Your task to perform on an android device: Go to calendar. Show me events next week Image 0: 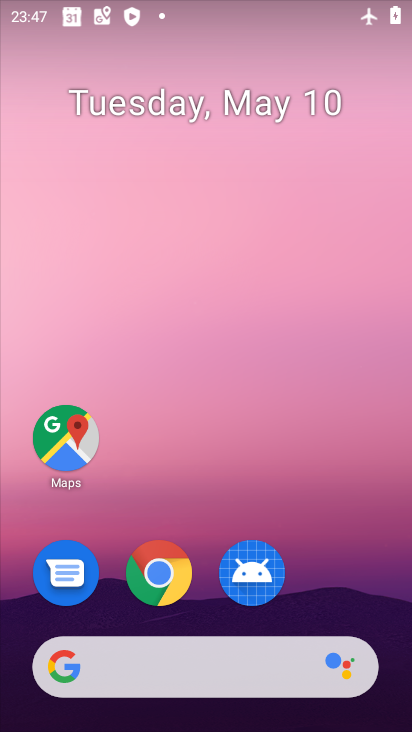
Step 0: drag from (297, 514) to (223, 132)
Your task to perform on an android device: Go to calendar. Show me events next week Image 1: 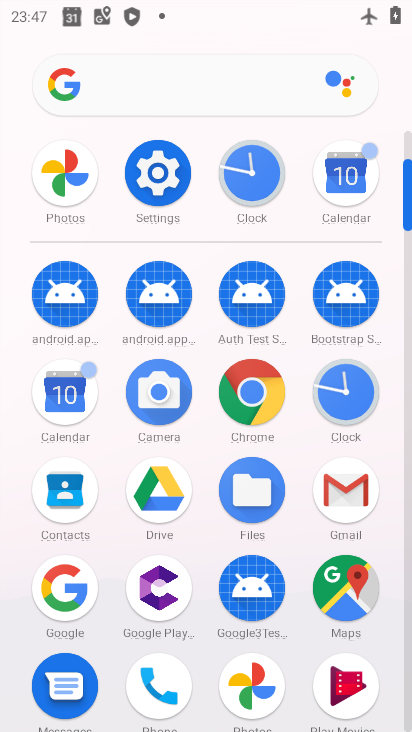
Step 1: click (83, 405)
Your task to perform on an android device: Go to calendar. Show me events next week Image 2: 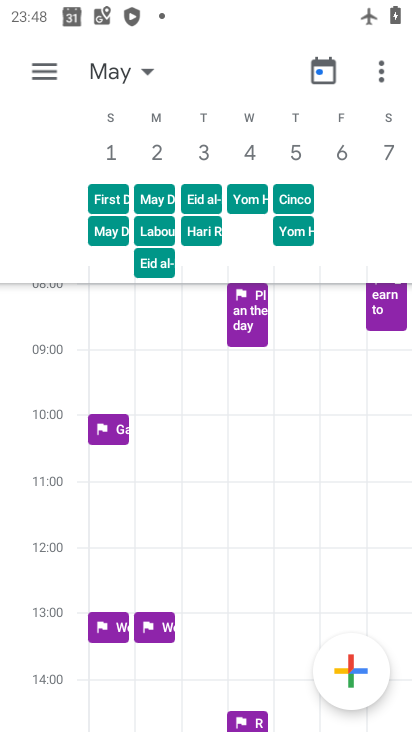
Step 2: click (148, 73)
Your task to perform on an android device: Go to calendar. Show me events next week Image 3: 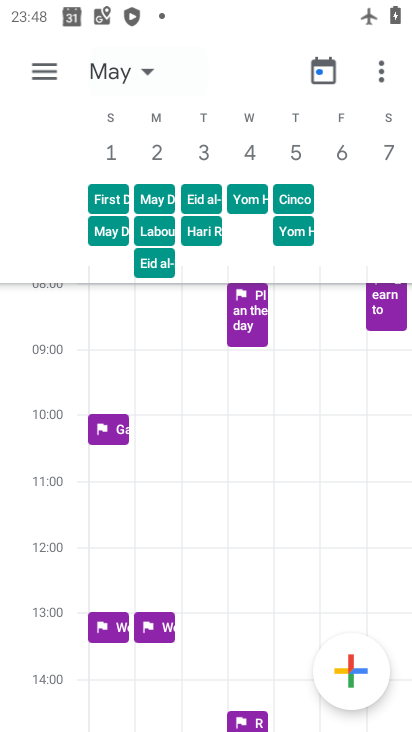
Step 3: click (148, 73)
Your task to perform on an android device: Go to calendar. Show me events next week Image 4: 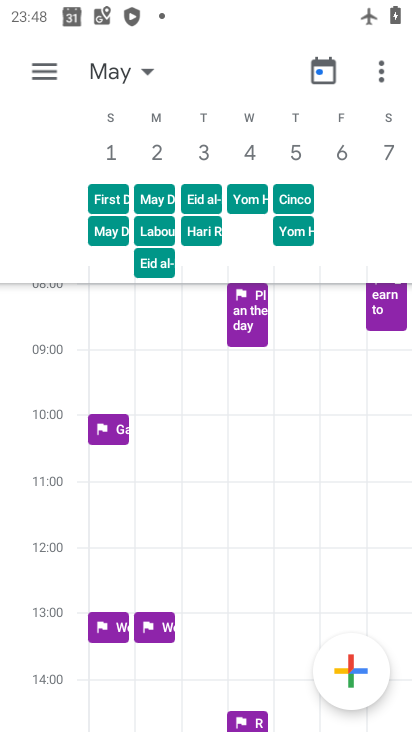
Step 4: click (148, 70)
Your task to perform on an android device: Go to calendar. Show me events next week Image 5: 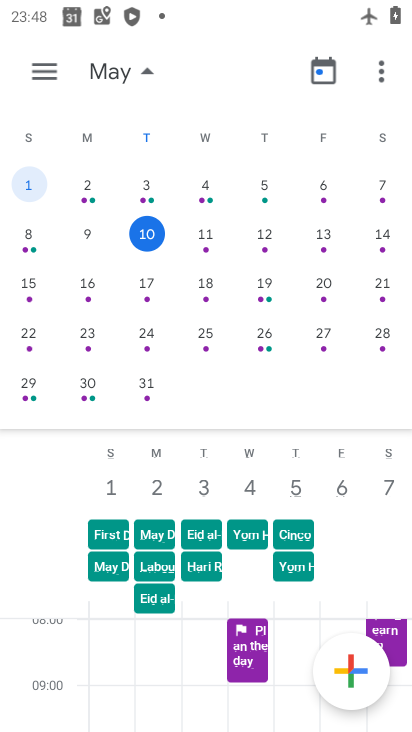
Step 5: click (141, 282)
Your task to perform on an android device: Go to calendar. Show me events next week Image 6: 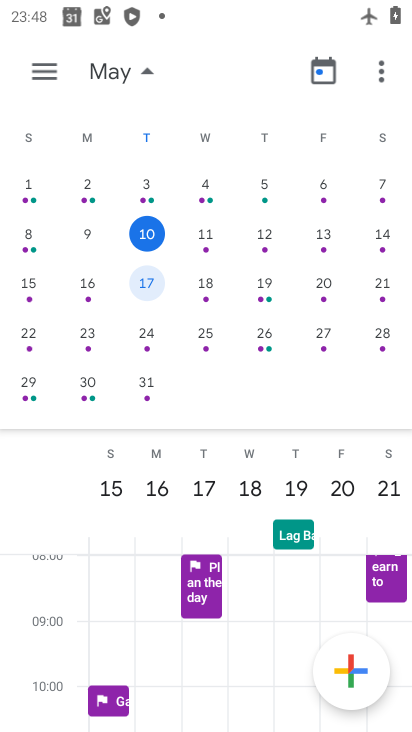
Step 6: task complete